Your task to perform on an android device: Go to wifi settings Image 0: 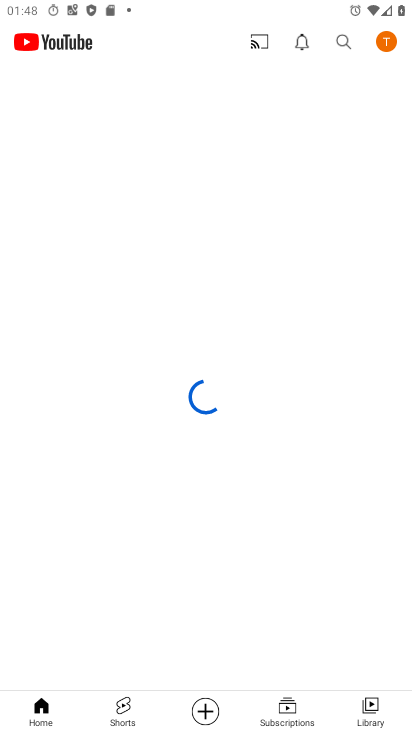
Step 0: press home button
Your task to perform on an android device: Go to wifi settings Image 1: 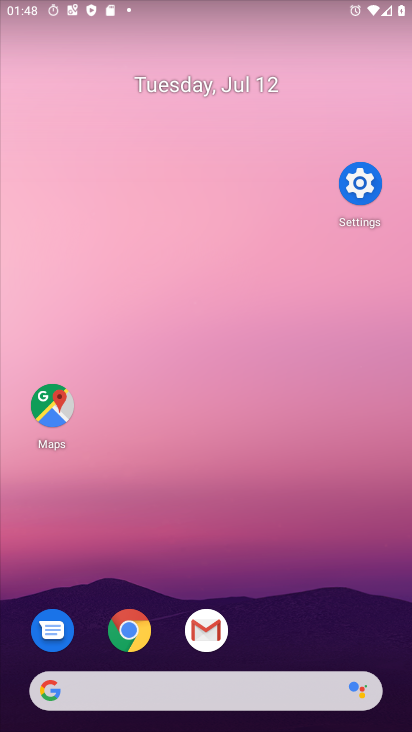
Step 1: drag from (351, 173) to (288, 594)
Your task to perform on an android device: Go to wifi settings Image 2: 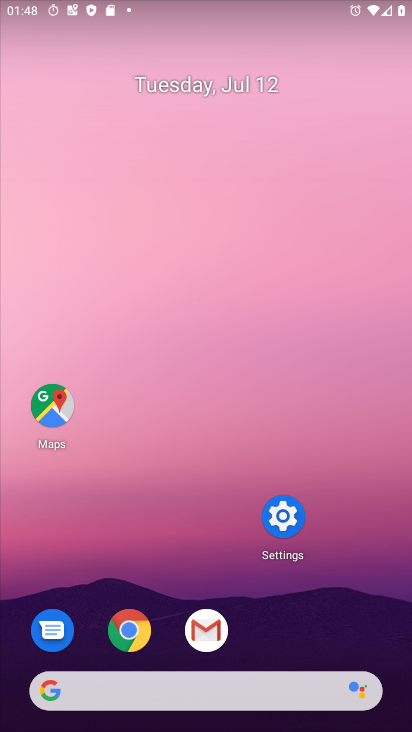
Step 2: click (297, 521)
Your task to perform on an android device: Go to wifi settings Image 3: 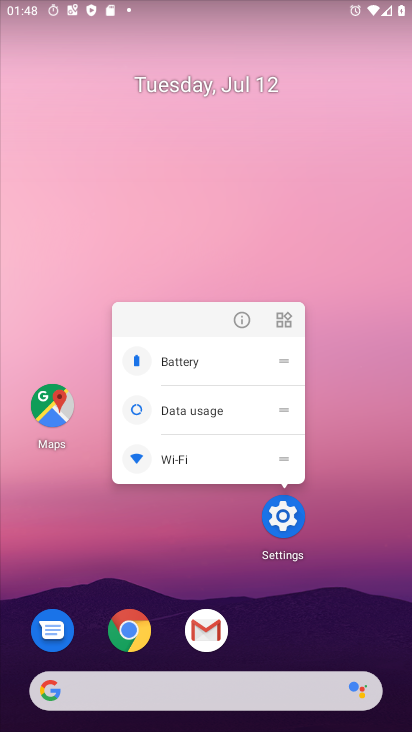
Step 3: click (281, 532)
Your task to perform on an android device: Go to wifi settings Image 4: 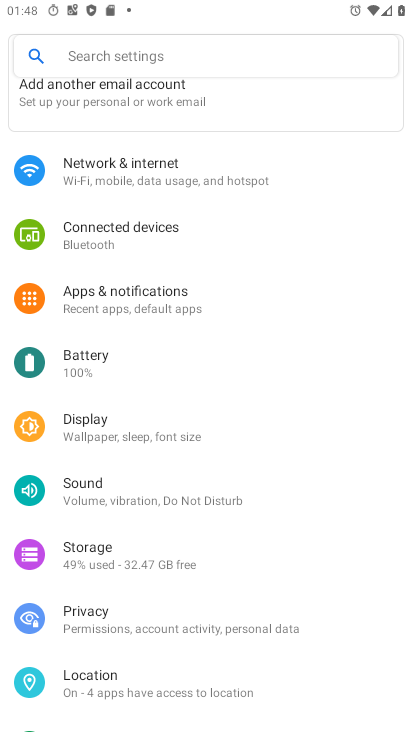
Step 4: click (94, 59)
Your task to perform on an android device: Go to wifi settings Image 5: 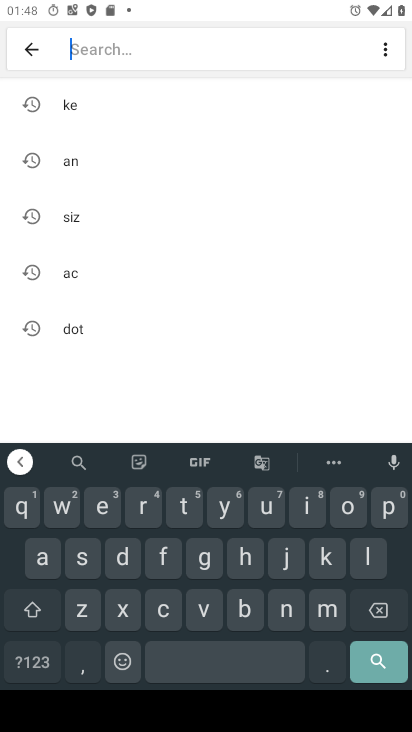
Step 5: click (29, 50)
Your task to perform on an android device: Go to wifi settings Image 6: 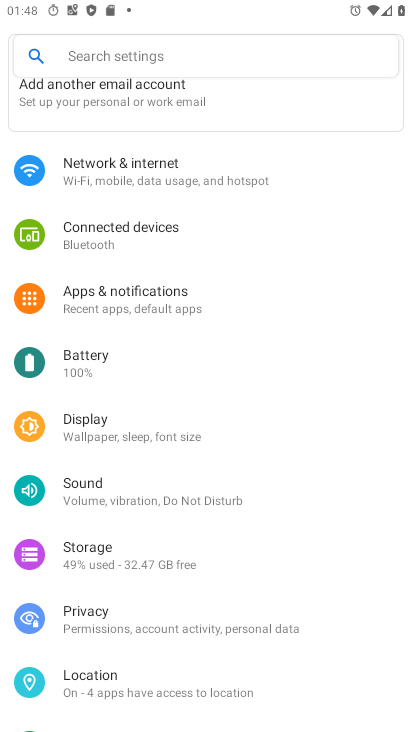
Step 6: click (105, 171)
Your task to perform on an android device: Go to wifi settings Image 7: 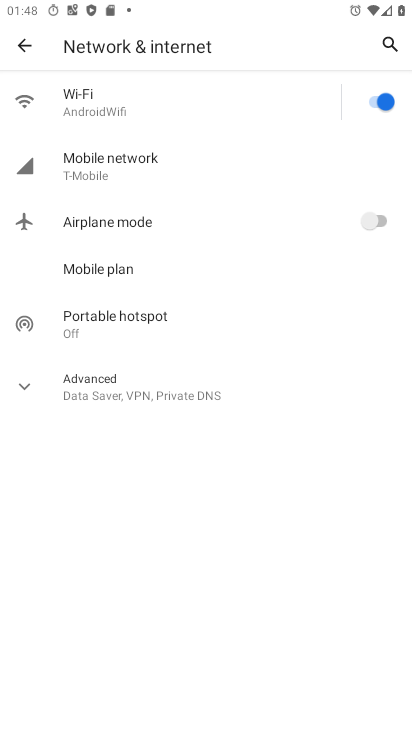
Step 7: click (99, 97)
Your task to perform on an android device: Go to wifi settings Image 8: 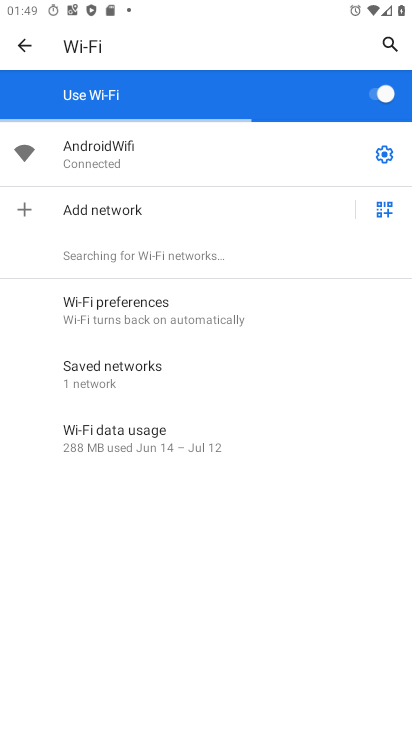
Step 8: task complete